Your task to perform on an android device: Go to Google Image 0: 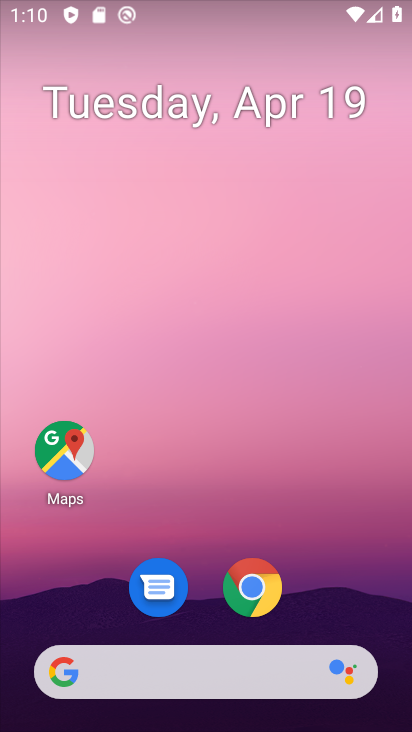
Step 0: drag from (212, 575) to (220, 9)
Your task to perform on an android device: Go to Google Image 1: 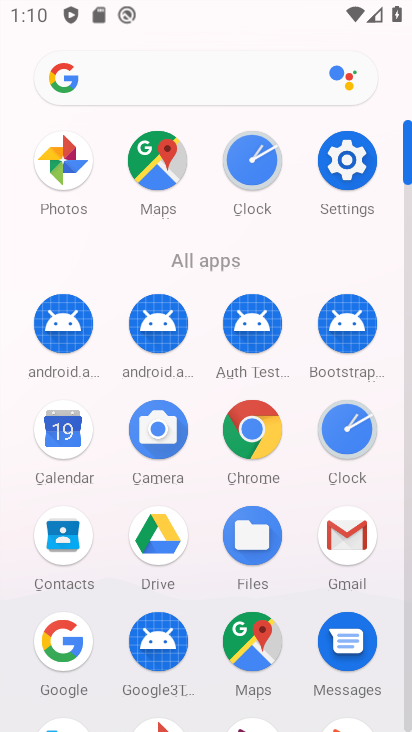
Step 1: click (61, 632)
Your task to perform on an android device: Go to Google Image 2: 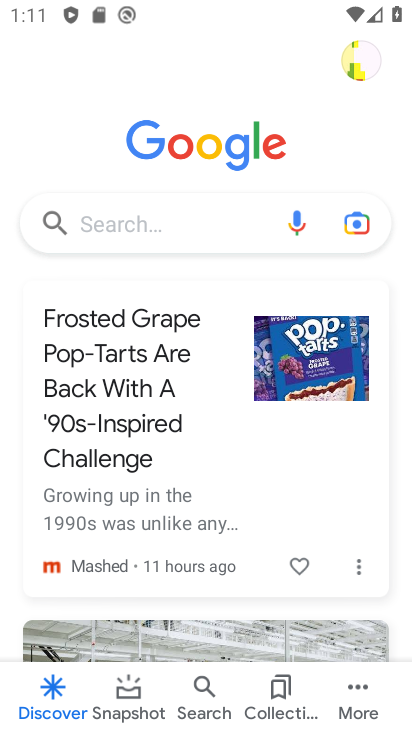
Step 2: task complete